Your task to perform on an android device: What is the news today? Image 0: 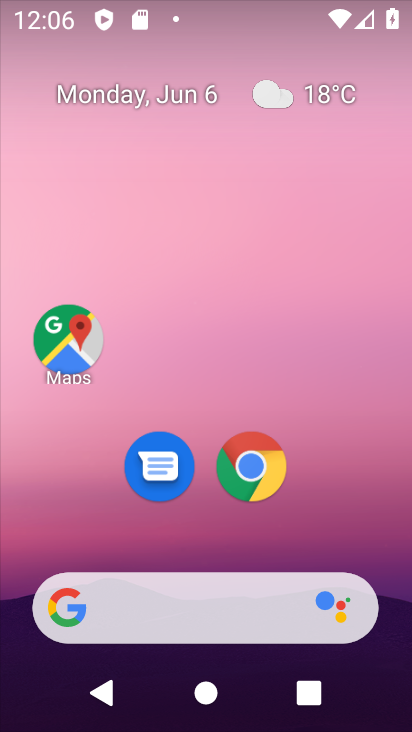
Step 0: drag from (342, 504) to (232, 86)
Your task to perform on an android device: What is the news today? Image 1: 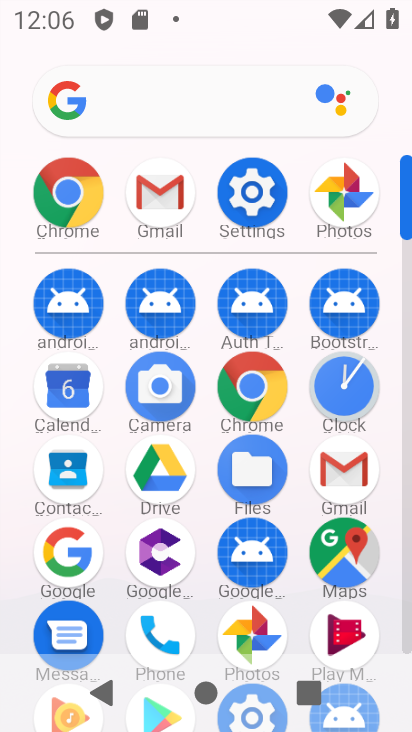
Step 1: drag from (1, 620) to (9, 264)
Your task to perform on an android device: What is the news today? Image 2: 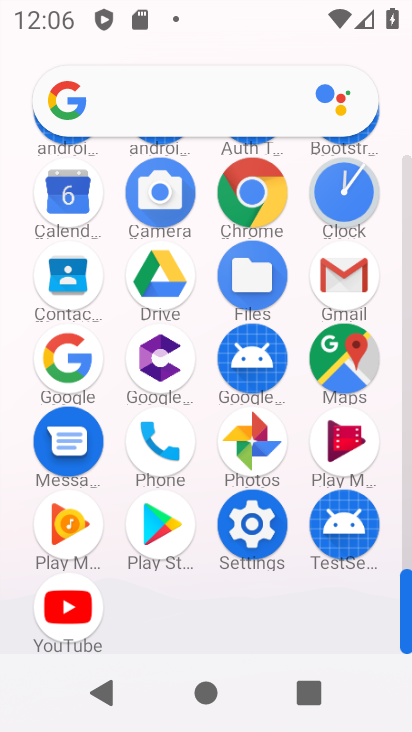
Step 2: click (249, 186)
Your task to perform on an android device: What is the news today? Image 3: 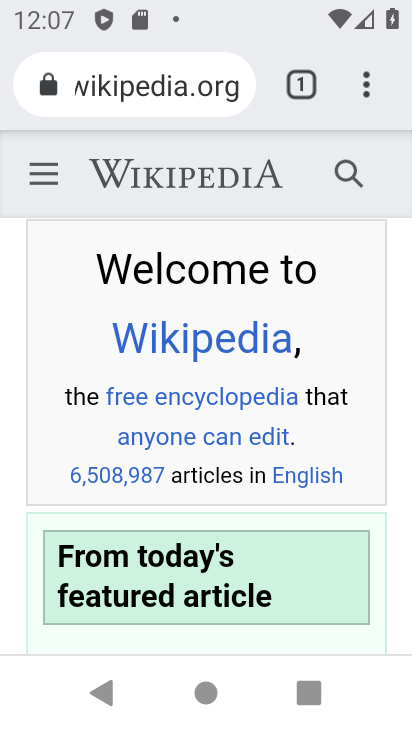
Step 3: click (192, 93)
Your task to perform on an android device: What is the news today? Image 4: 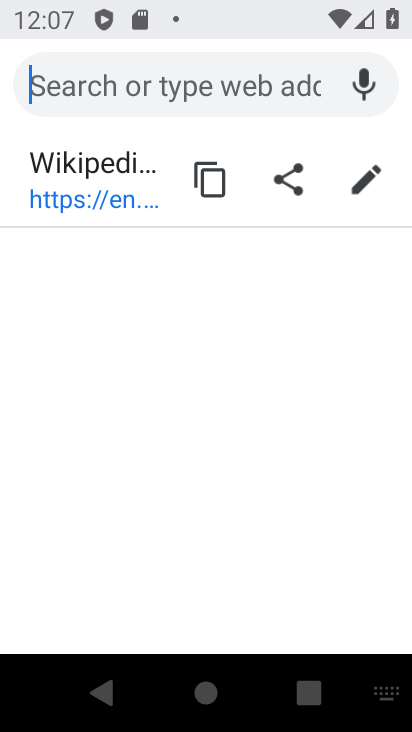
Step 4: type "What is the news today?"
Your task to perform on an android device: What is the news today? Image 5: 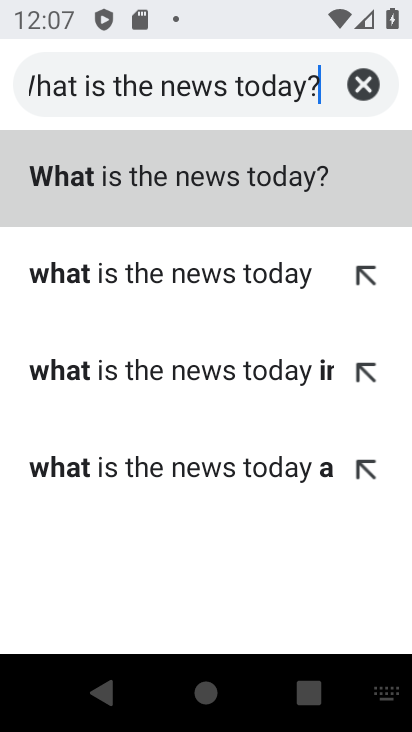
Step 5: type ""
Your task to perform on an android device: What is the news today? Image 6: 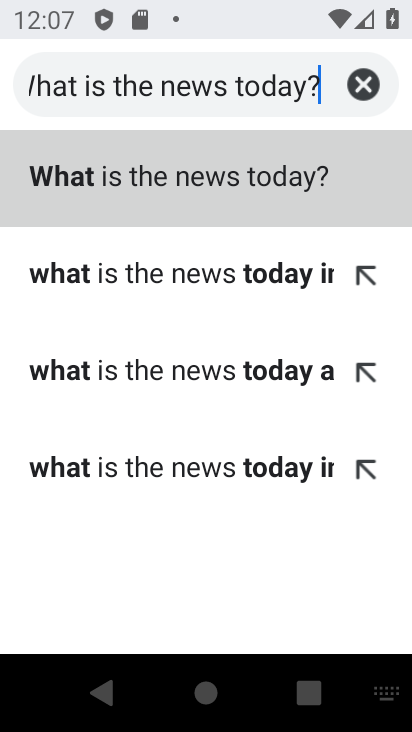
Step 6: click (86, 181)
Your task to perform on an android device: What is the news today? Image 7: 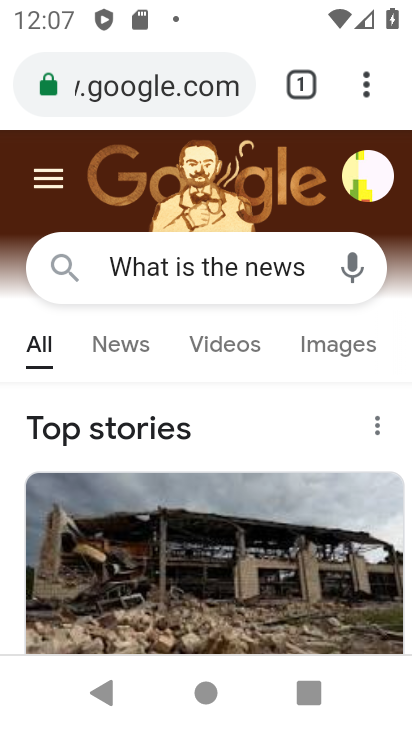
Step 7: task complete